Your task to perform on an android device: Open notification settings Image 0: 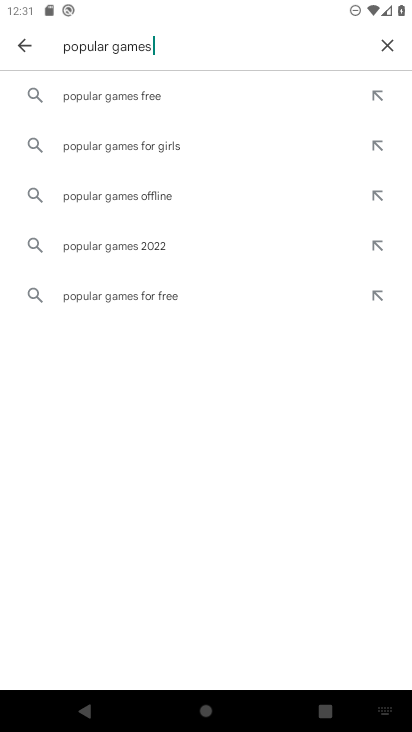
Step 0: press home button
Your task to perform on an android device: Open notification settings Image 1: 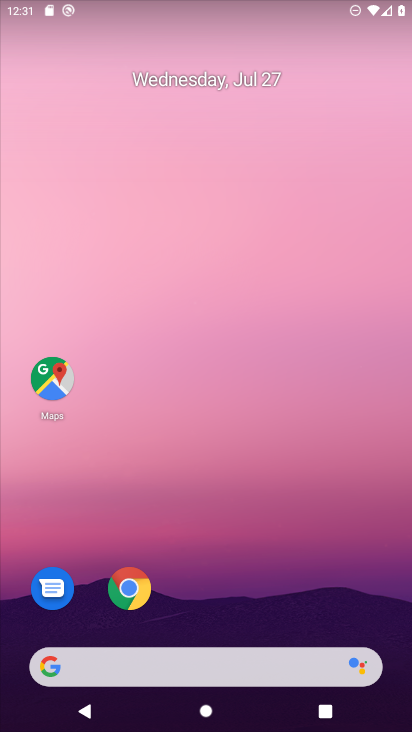
Step 1: drag from (91, 471) to (216, 8)
Your task to perform on an android device: Open notification settings Image 2: 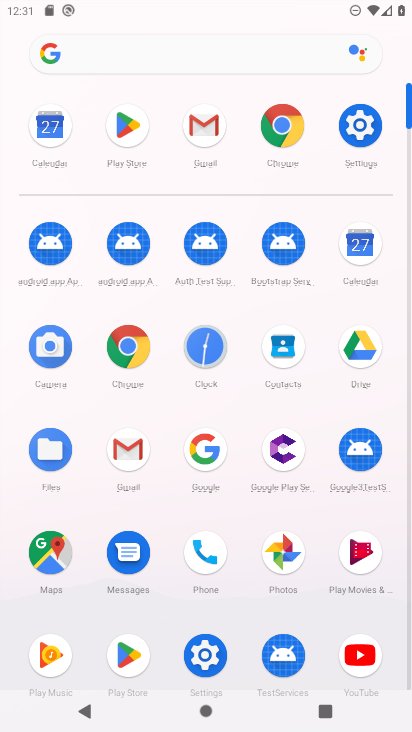
Step 2: click (207, 664)
Your task to perform on an android device: Open notification settings Image 3: 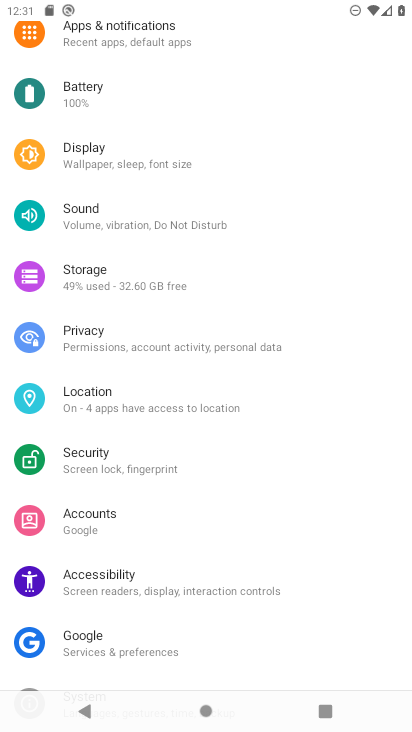
Step 3: click (136, 35)
Your task to perform on an android device: Open notification settings Image 4: 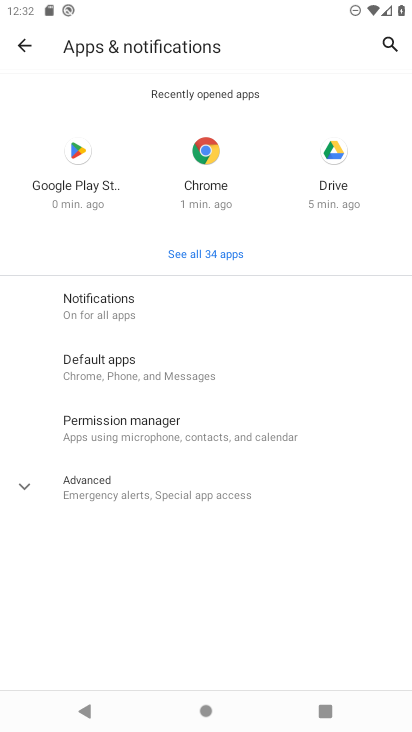
Step 4: task complete